Your task to perform on an android device: empty trash in google photos Image 0: 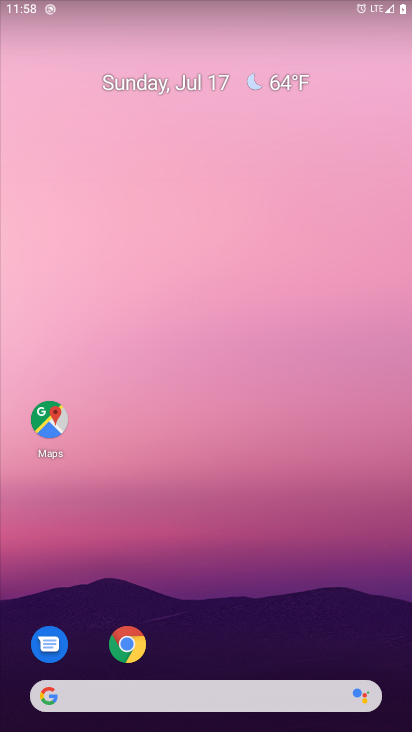
Step 0: drag from (301, 611) to (294, 140)
Your task to perform on an android device: empty trash in google photos Image 1: 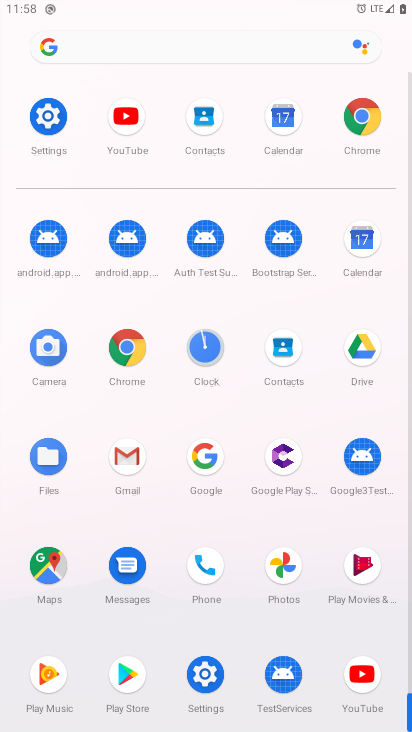
Step 1: click (281, 568)
Your task to perform on an android device: empty trash in google photos Image 2: 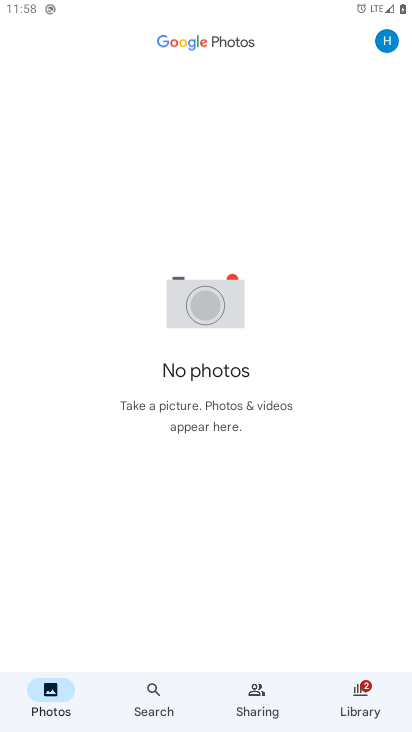
Step 2: click (378, 41)
Your task to perform on an android device: empty trash in google photos Image 3: 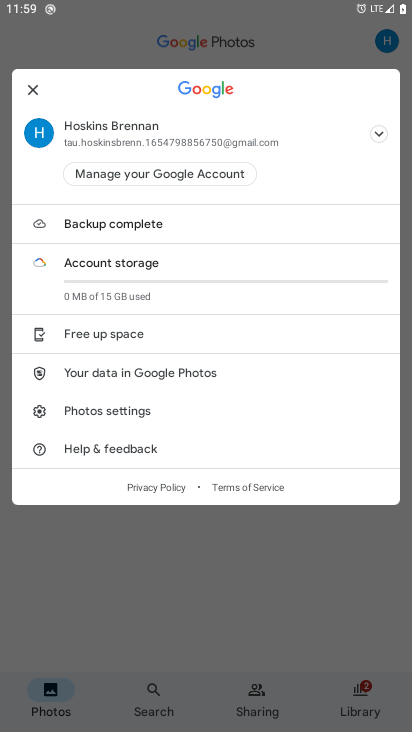
Step 3: click (115, 405)
Your task to perform on an android device: empty trash in google photos Image 4: 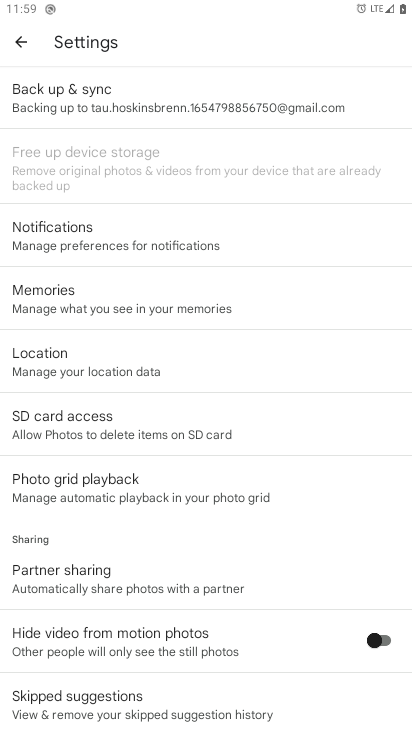
Step 4: click (16, 28)
Your task to perform on an android device: empty trash in google photos Image 5: 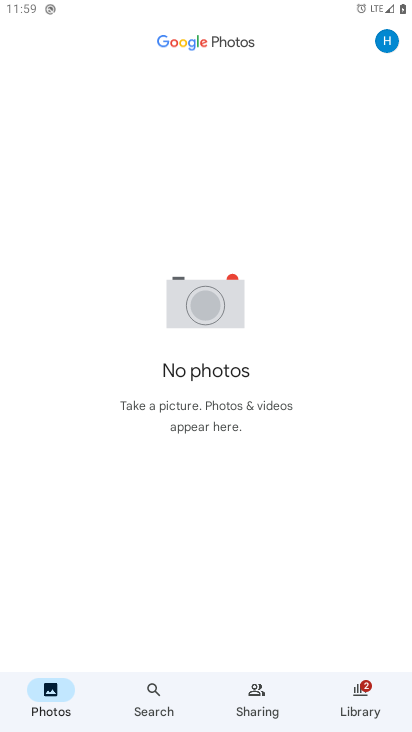
Step 5: click (18, 37)
Your task to perform on an android device: empty trash in google photos Image 6: 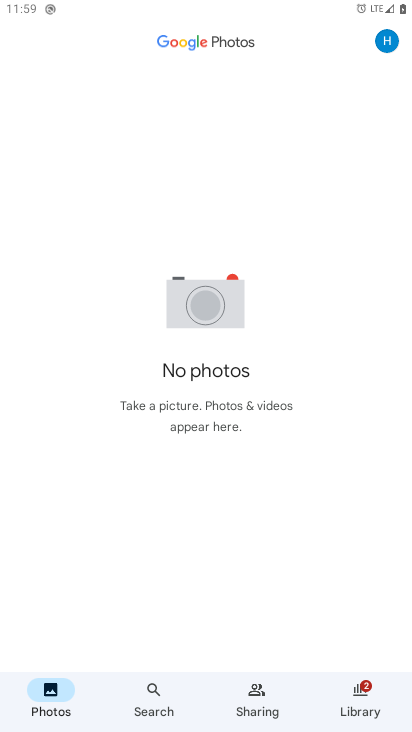
Step 6: task complete